Your task to perform on an android device: toggle wifi Image 0: 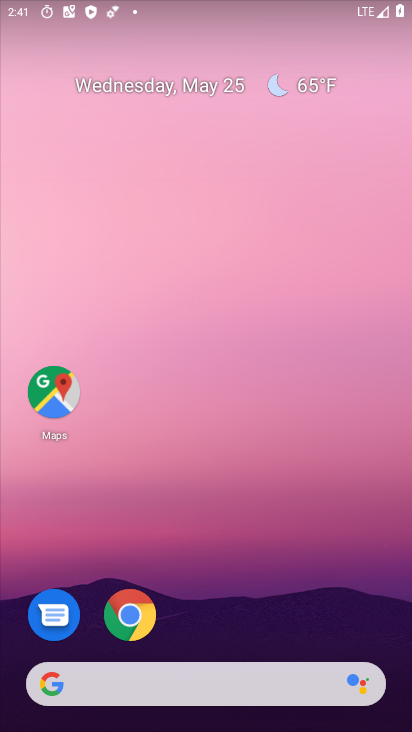
Step 0: press home button
Your task to perform on an android device: toggle wifi Image 1: 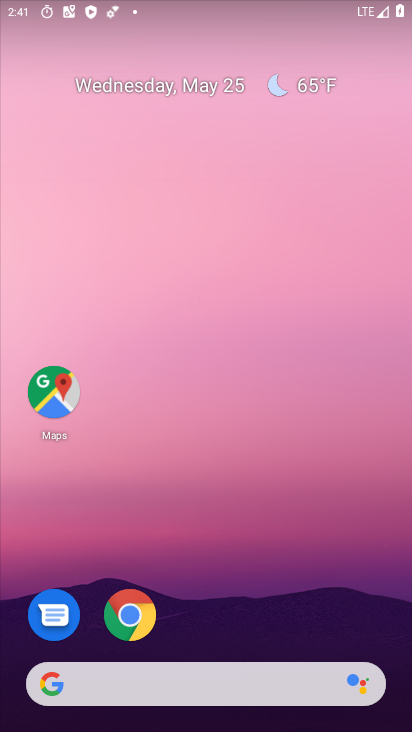
Step 1: drag from (395, 694) to (323, 171)
Your task to perform on an android device: toggle wifi Image 2: 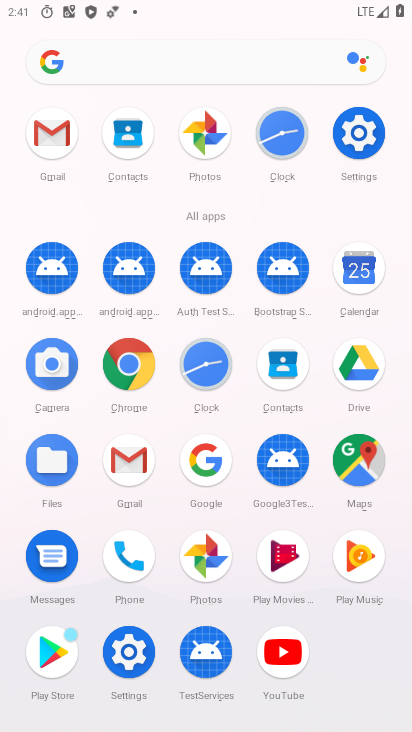
Step 2: click (370, 139)
Your task to perform on an android device: toggle wifi Image 3: 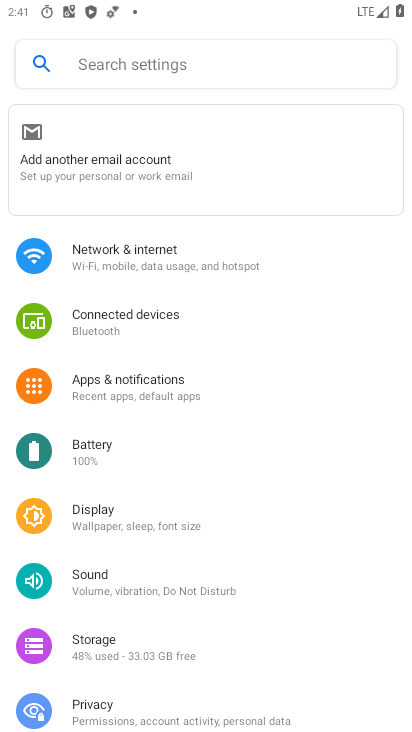
Step 3: click (125, 262)
Your task to perform on an android device: toggle wifi Image 4: 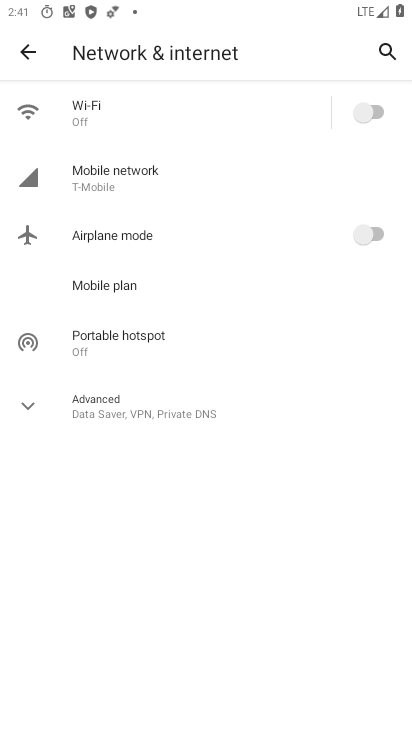
Step 4: click (372, 112)
Your task to perform on an android device: toggle wifi Image 5: 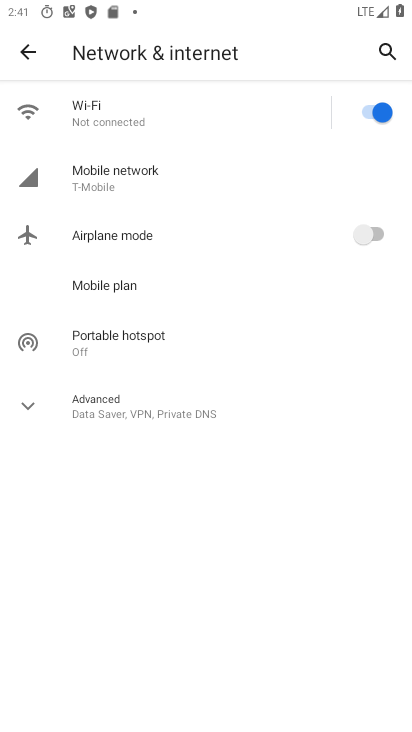
Step 5: task complete